Your task to perform on an android device: turn off wifi Image 0: 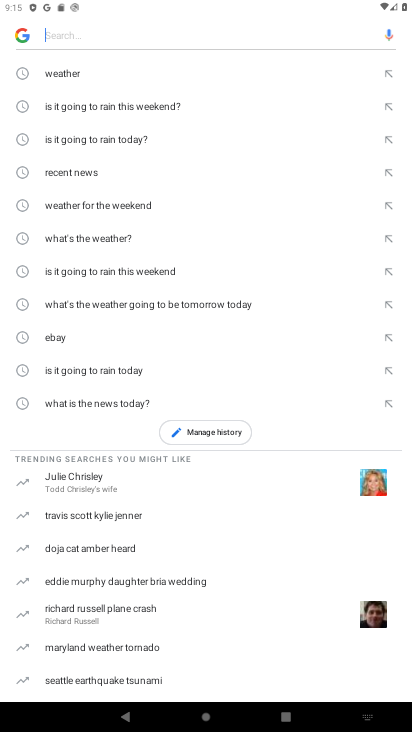
Step 0: press home button
Your task to perform on an android device: turn off wifi Image 1: 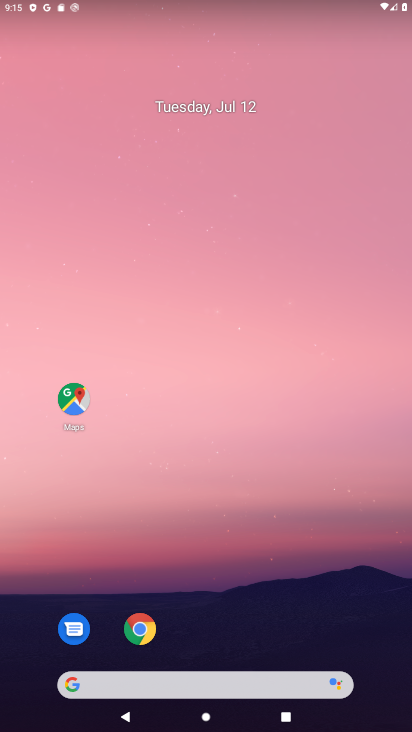
Step 1: drag from (227, 638) to (174, 163)
Your task to perform on an android device: turn off wifi Image 2: 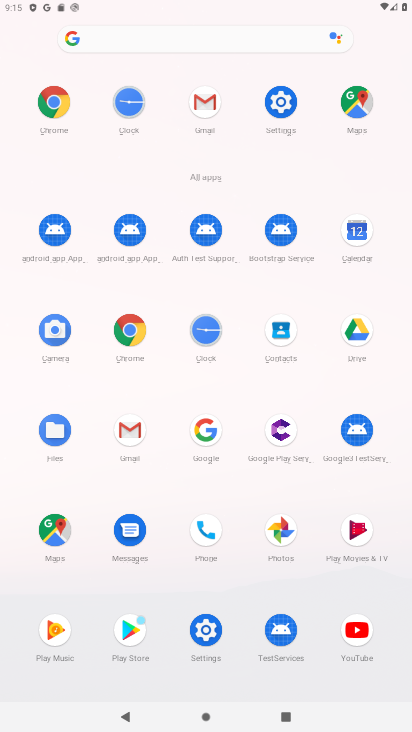
Step 2: click (277, 109)
Your task to perform on an android device: turn off wifi Image 3: 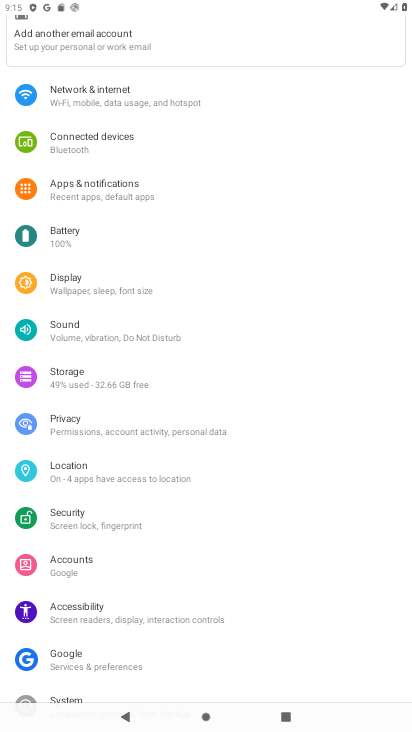
Step 3: click (231, 95)
Your task to perform on an android device: turn off wifi Image 4: 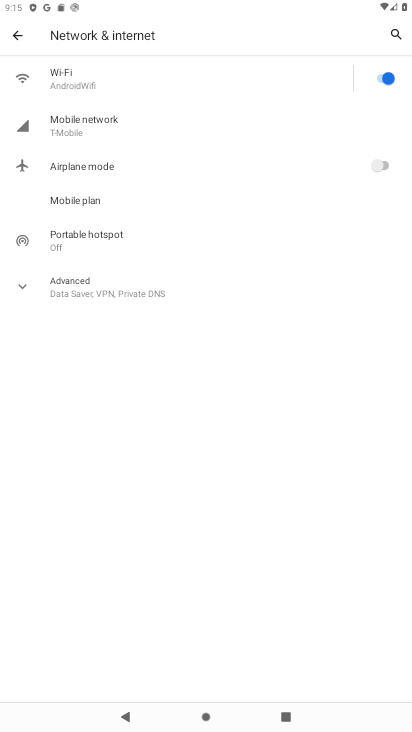
Step 4: click (384, 79)
Your task to perform on an android device: turn off wifi Image 5: 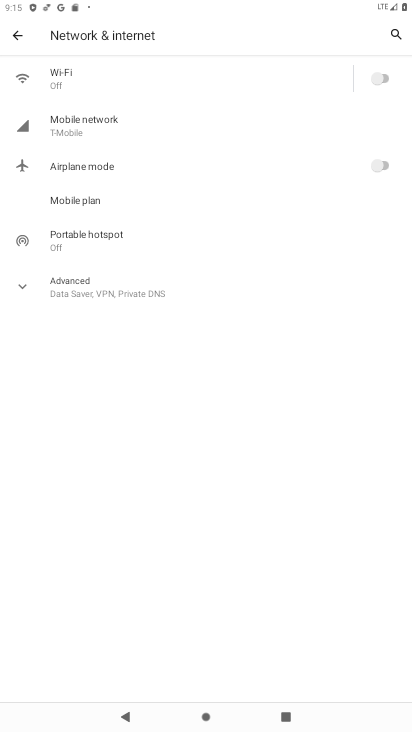
Step 5: task complete